Your task to perform on an android device: Go to eBay Image 0: 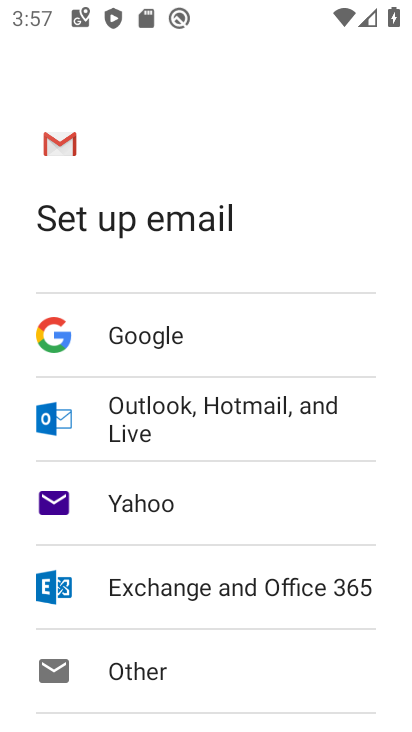
Step 0: press home button
Your task to perform on an android device: Go to eBay Image 1: 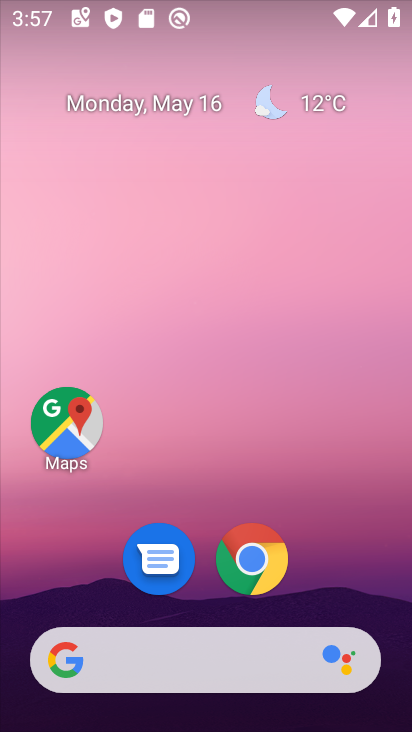
Step 1: click (261, 569)
Your task to perform on an android device: Go to eBay Image 2: 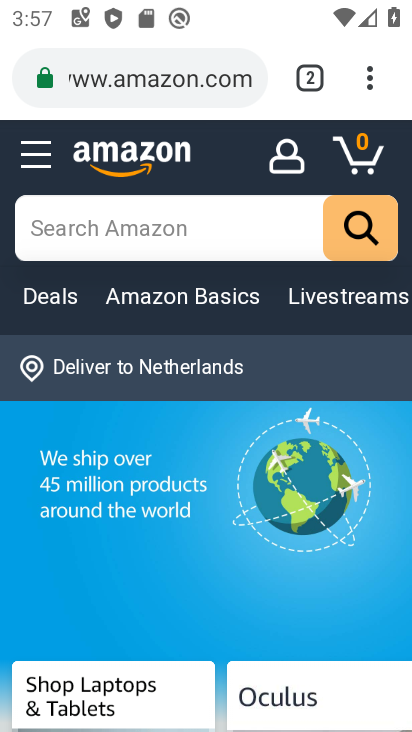
Step 2: click (197, 86)
Your task to perform on an android device: Go to eBay Image 3: 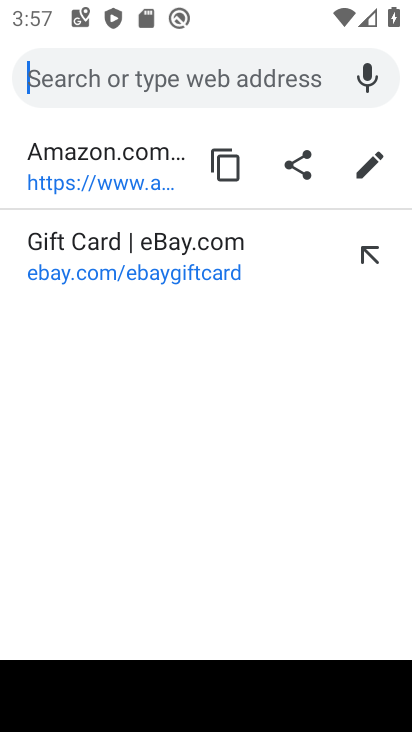
Step 3: type "ebay.com"
Your task to perform on an android device: Go to eBay Image 4: 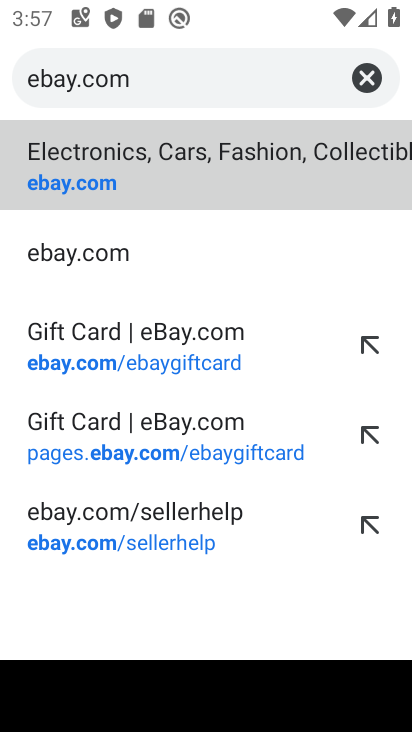
Step 4: click (204, 176)
Your task to perform on an android device: Go to eBay Image 5: 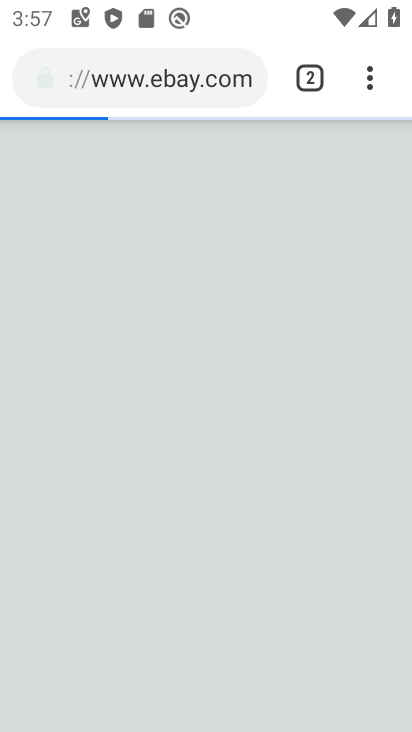
Step 5: task complete